Your task to perform on an android device: toggle javascript in the chrome app Image 0: 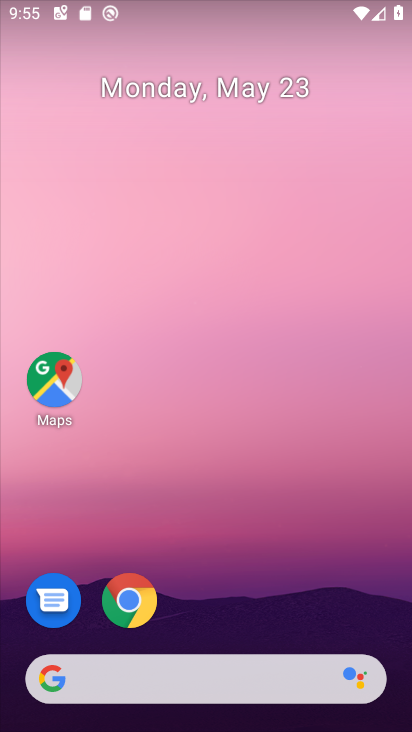
Step 0: click (131, 602)
Your task to perform on an android device: toggle javascript in the chrome app Image 1: 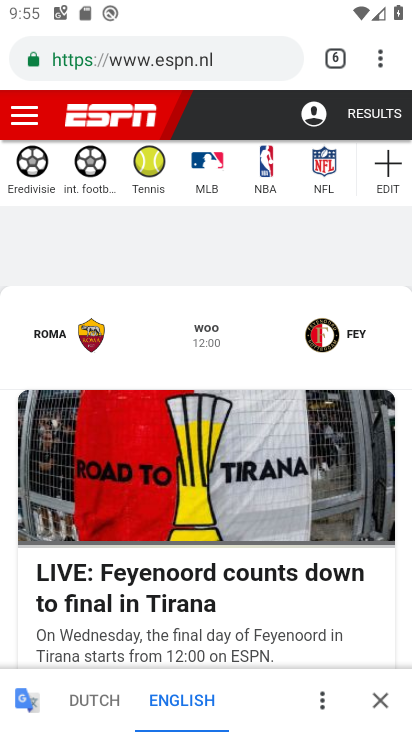
Step 1: click (379, 62)
Your task to perform on an android device: toggle javascript in the chrome app Image 2: 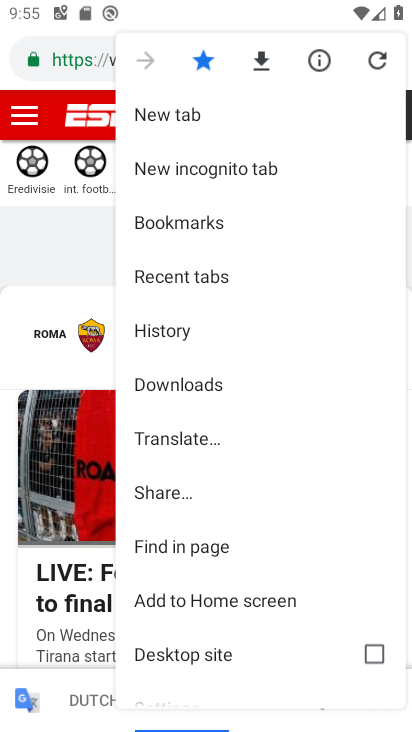
Step 2: drag from (218, 621) to (207, 217)
Your task to perform on an android device: toggle javascript in the chrome app Image 3: 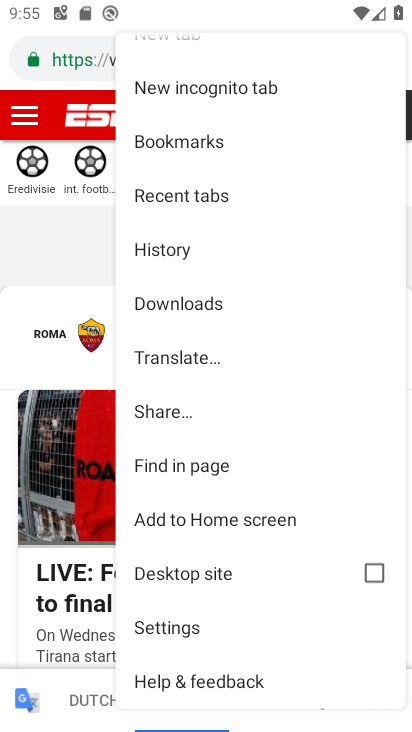
Step 3: click (172, 624)
Your task to perform on an android device: toggle javascript in the chrome app Image 4: 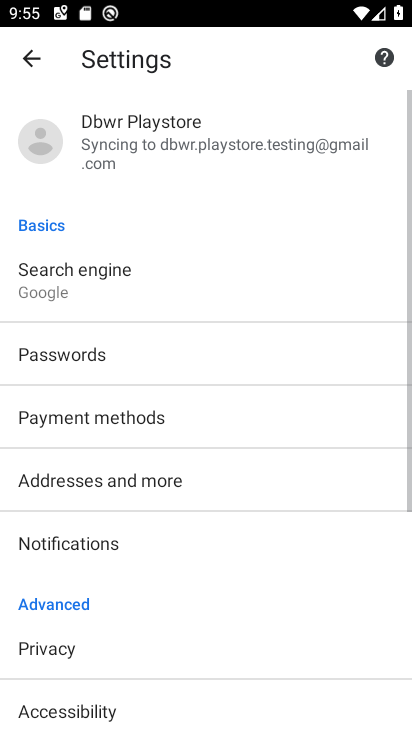
Step 4: drag from (146, 638) to (135, 218)
Your task to perform on an android device: toggle javascript in the chrome app Image 5: 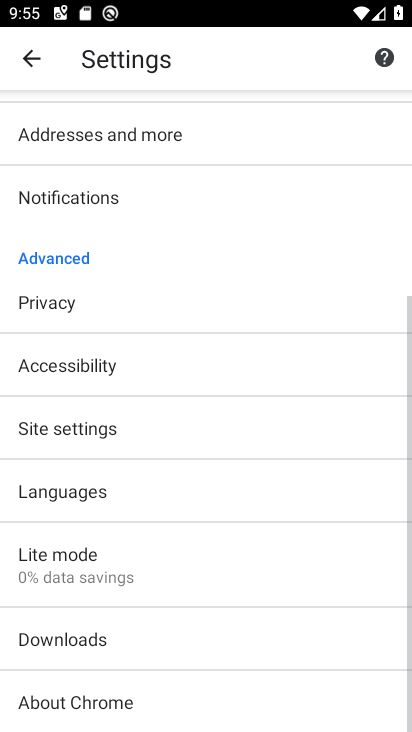
Step 5: click (74, 428)
Your task to perform on an android device: toggle javascript in the chrome app Image 6: 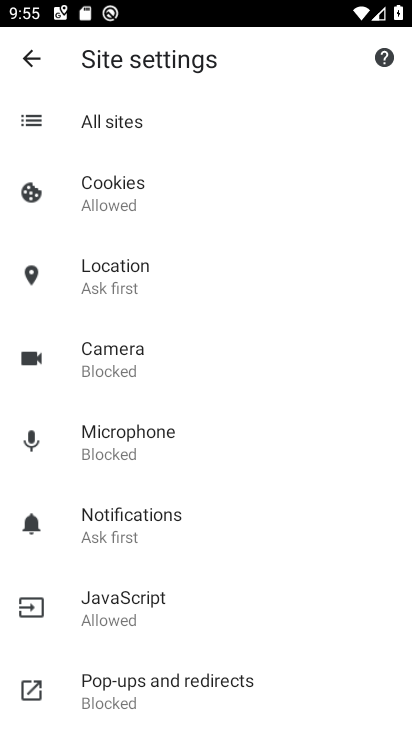
Step 6: click (121, 597)
Your task to perform on an android device: toggle javascript in the chrome app Image 7: 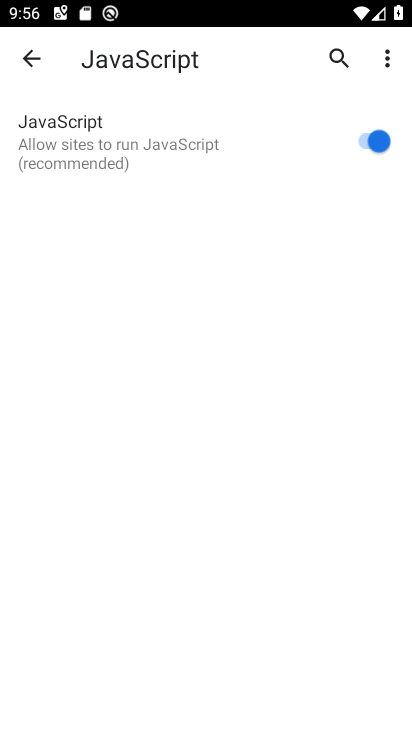
Step 7: click (361, 137)
Your task to perform on an android device: toggle javascript in the chrome app Image 8: 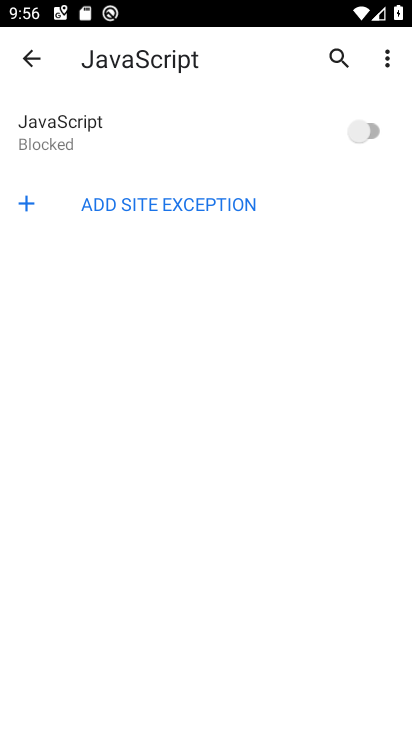
Step 8: task complete